Your task to perform on an android device: open a bookmark in the chrome app Image 0: 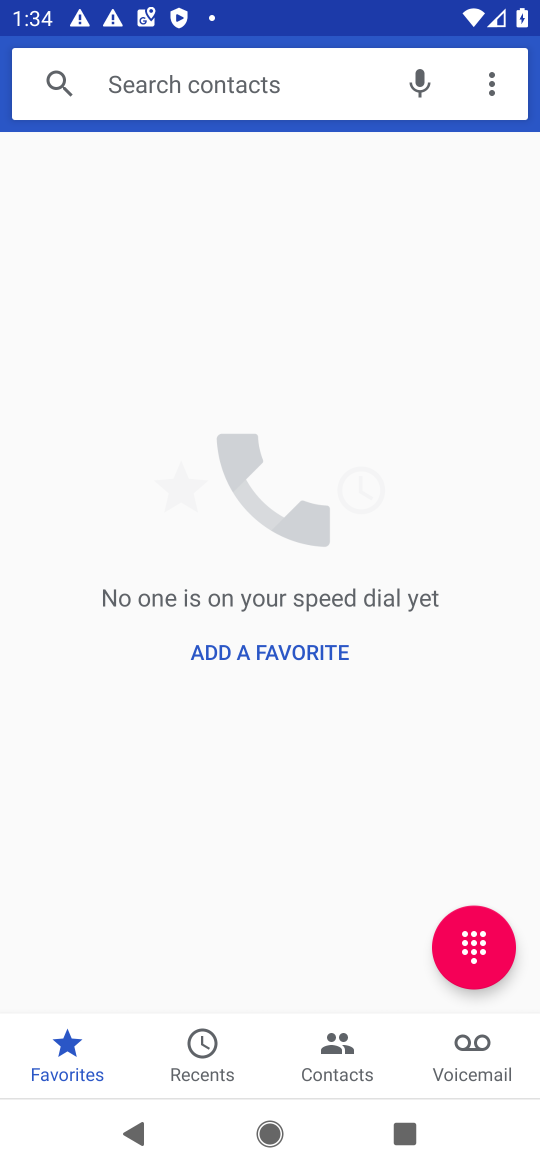
Step 0: press home button
Your task to perform on an android device: open a bookmark in the chrome app Image 1: 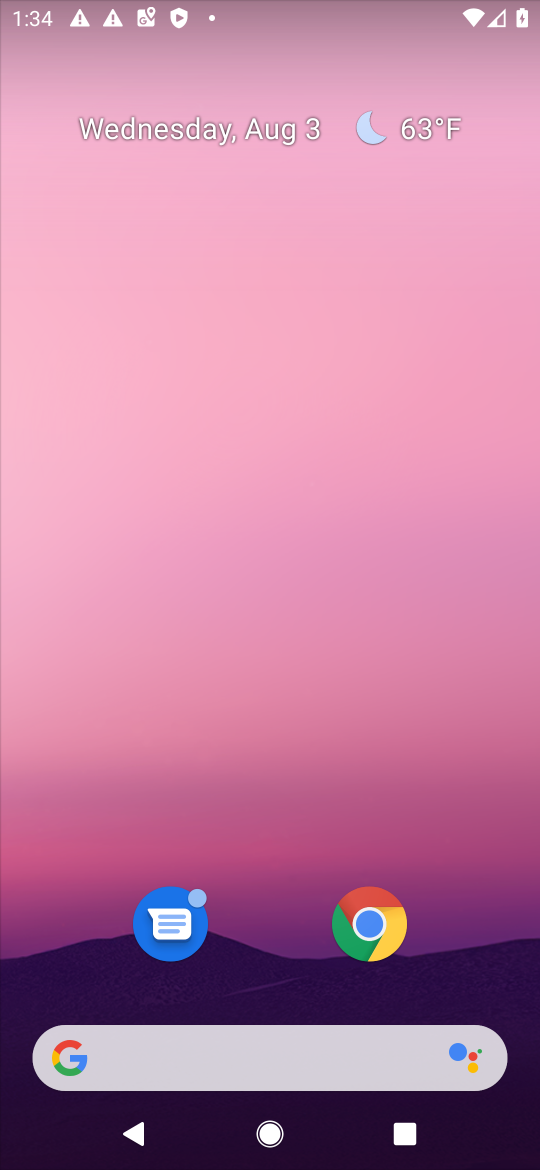
Step 1: drag from (274, 986) to (328, 235)
Your task to perform on an android device: open a bookmark in the chrome app Image 2: 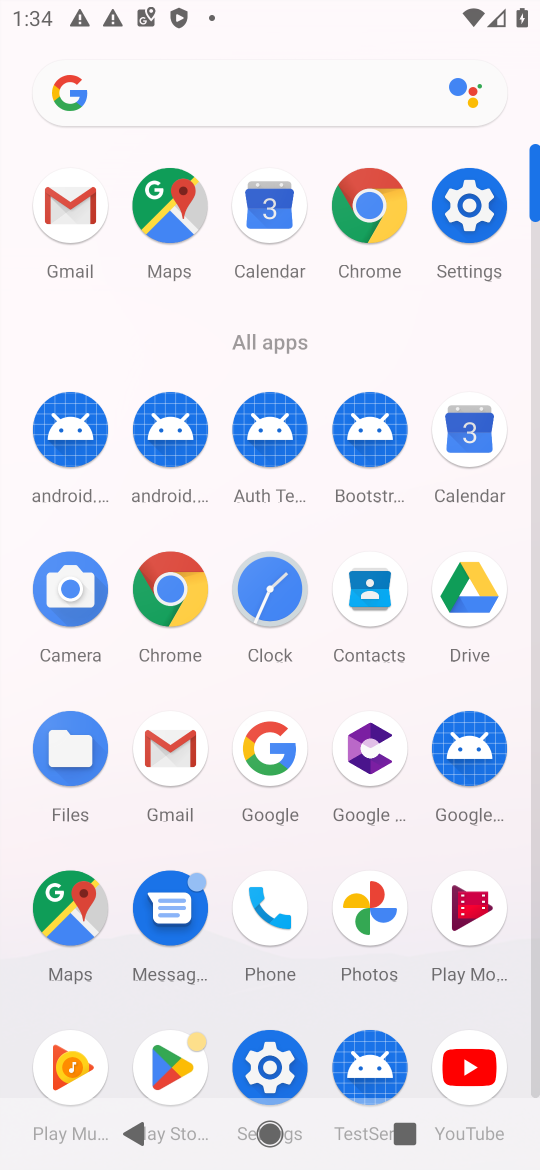
Step 2: click (166, 577)
Your task to perform on an android device: open a bookmark in the chrome app Image 3: 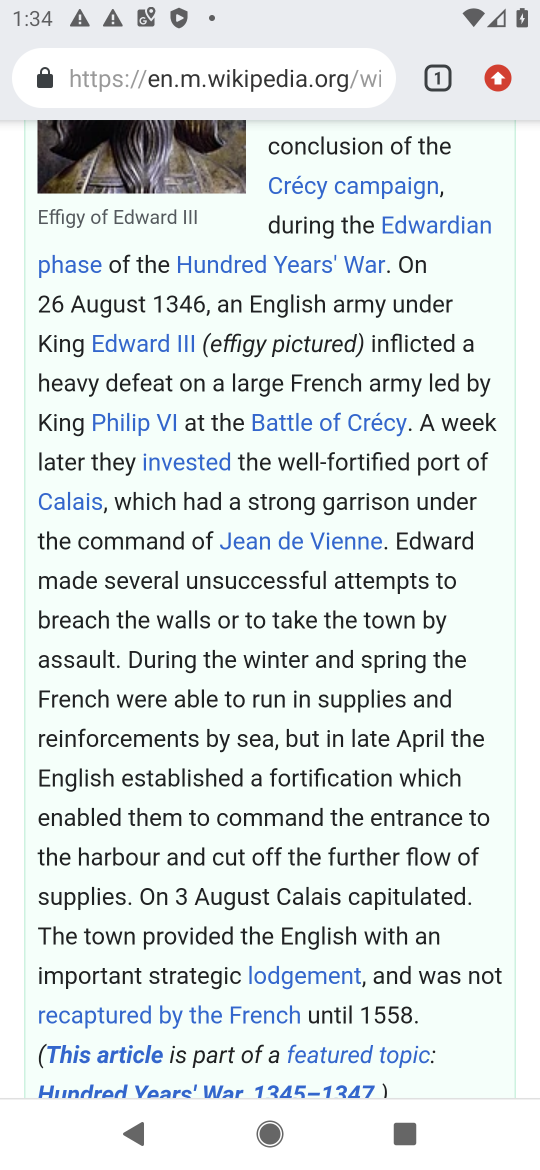
Step 3: click (497, 77)
Your task to perform on an android device: open a bookmark in the chrome app Image 4: 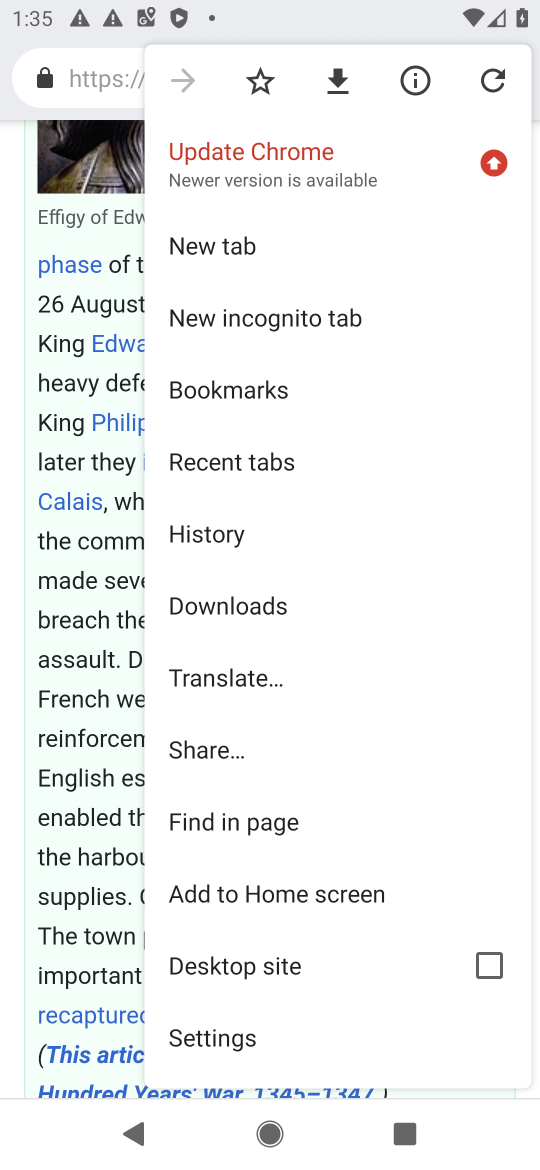
Step 4: click (264, 397)
Your task to perform on an android device: open a bookmark in the chrome app Image 5: 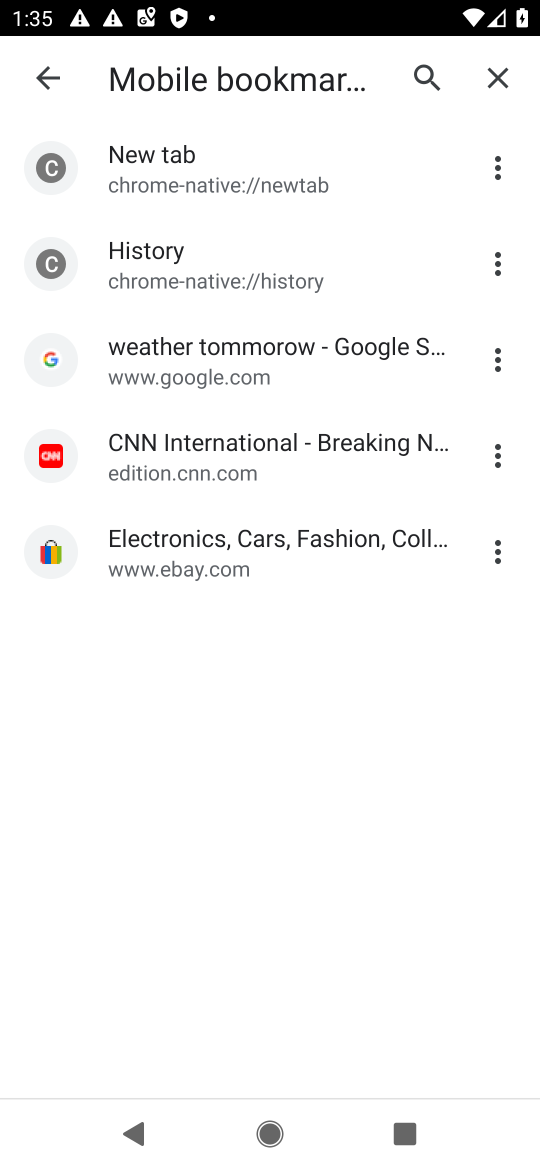
Step 5: click (151, 450)
Your task to perform on an android device: open a bookmark in the chrome app Image 6: 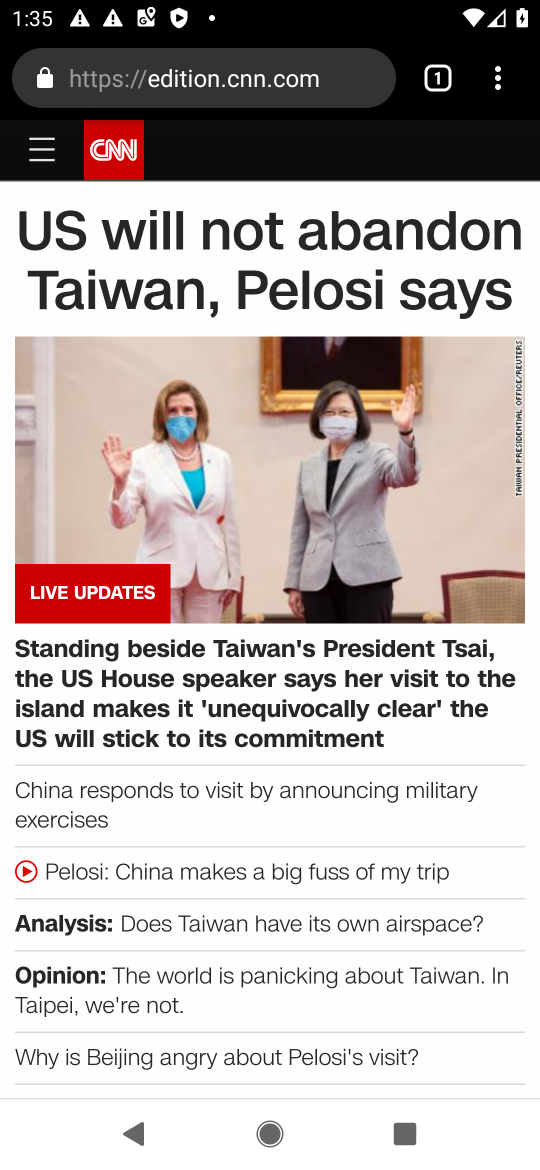
Step 6: task complete